Your task to perform on an android device: Open the calendar and show me this week's events? Image 0: 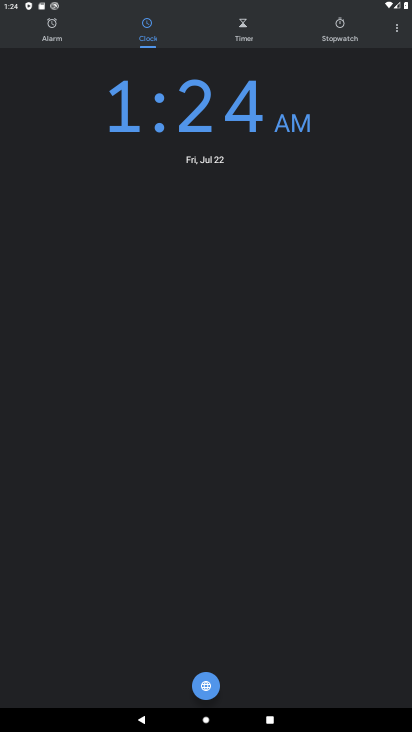
Step 0: press home button
Your task to perform on an android device: Open the calendar and show me this week's events? Image 1: 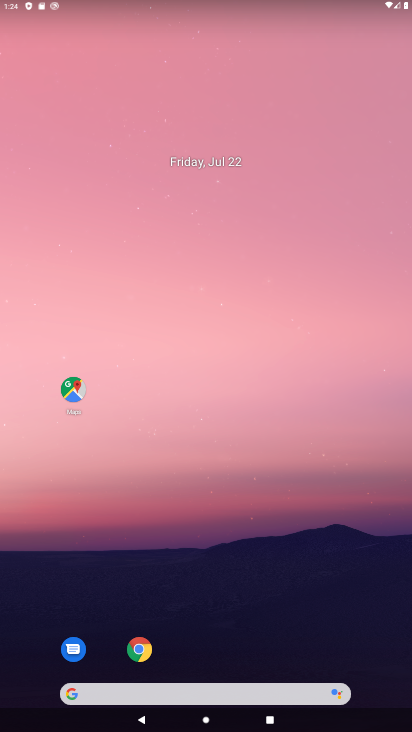
Step 1: drag from (292, 553) to (255, 210)
Your task to perform on an android device: Open the calendar and show me this week's events? Image 2: 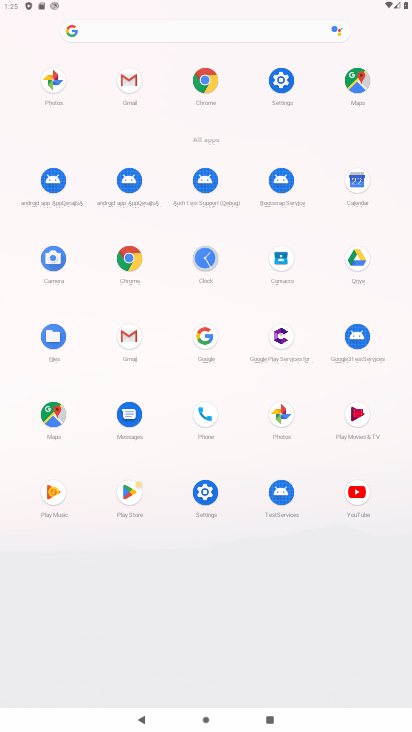
Step 2: click (364, 187)
Your task to perform on an android device: Open the calendar and show me this week's events? Image 3: 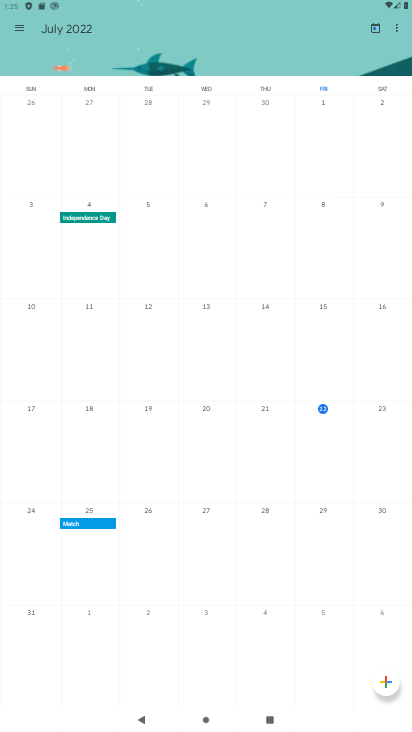
Step 3: click (15, 28)
Your task to perform on an android device: Open the calendar and show me this week's events? Image 4: 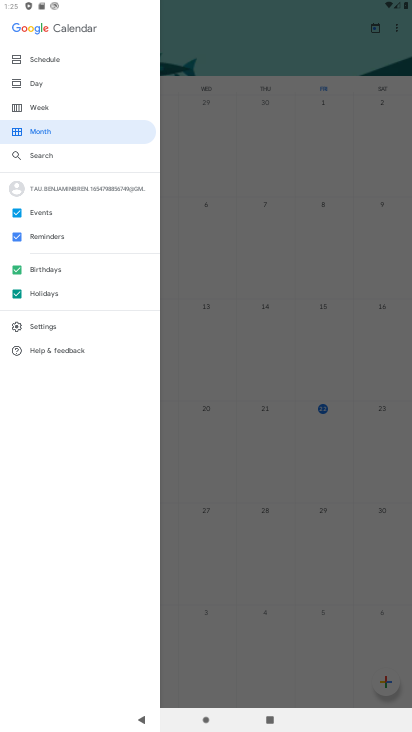
Step 4: click (54, 103)
Your task to perform on an android device: Open the calendar and show me this week's events? Image 5: 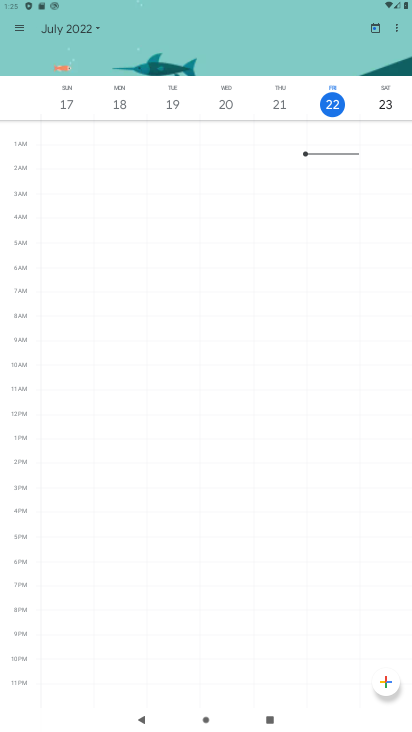
Step 5: task complete